Your task to perform on an android device: toggle translation in the chrome app Image 0: 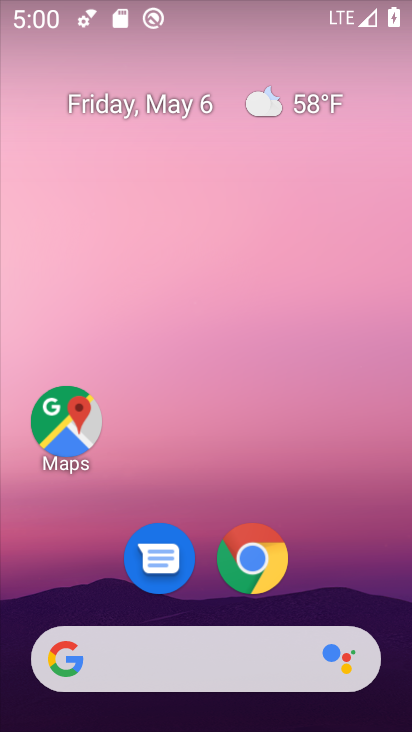
Step 0: drag from (294, 609) to (301, 58)
Your task to perform on an android device: toggle translation in the chrome app Image 1: 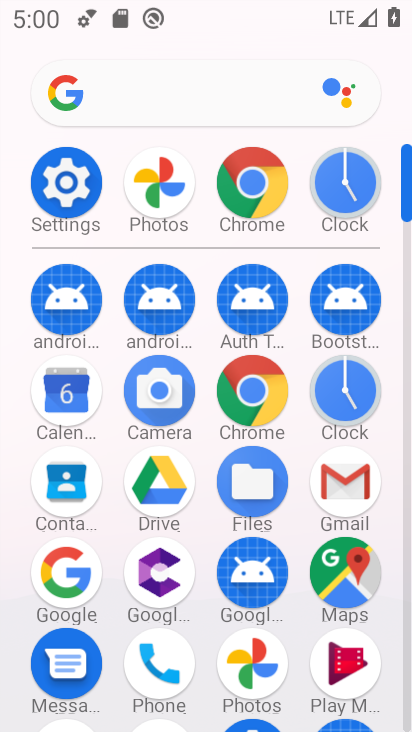
Step 1: click (265, 403)
Your task to perform on an android device: toggle translation in the chrome app Image 2: 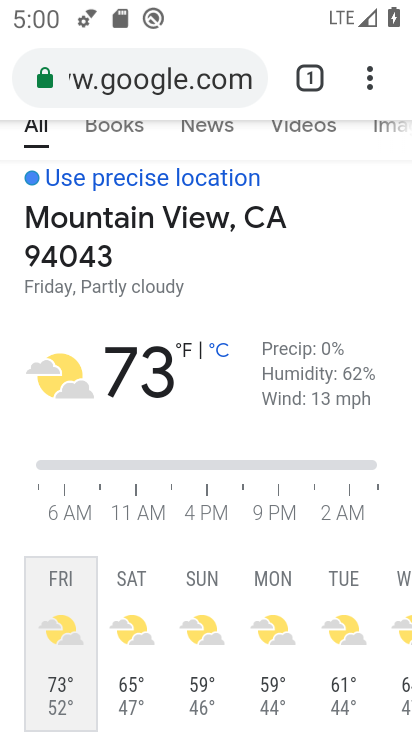
Step 2: drag from (371, 78) to (126, 633)
Your task to perform on an android device: toggle translation in the chrome app Image 3: 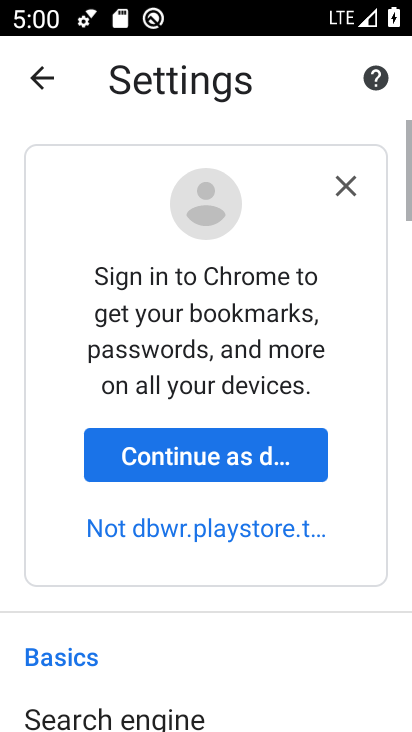
Step 3: drag from (158, 682) to (121, 8)
Your task to perform on an android device: toggle translation in the chrome app Image 4: 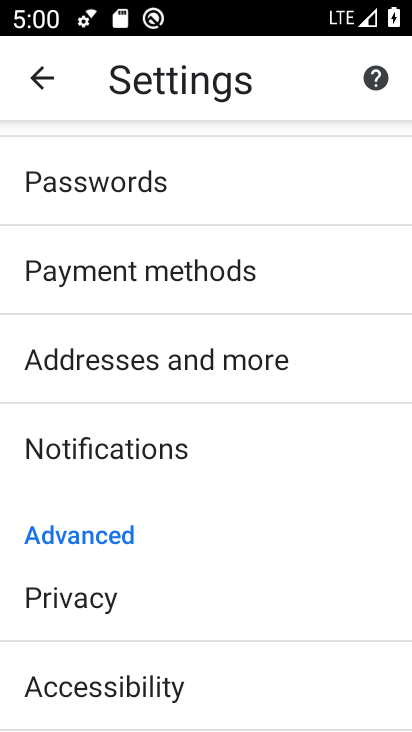
Step 4: drag from (243, 714) to (230, 168)
Your task to perform on an android device: toggle translation in the chrome app Image 5: 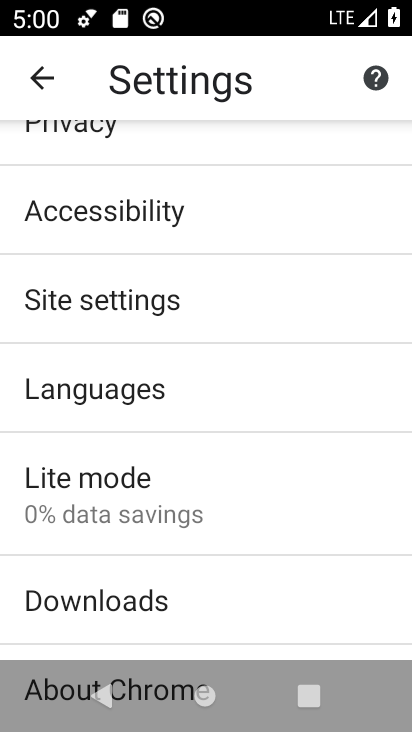
Step 5: click (144, 304)
Your task to perform on an android device: toggle translation in the chrome app Image 6: 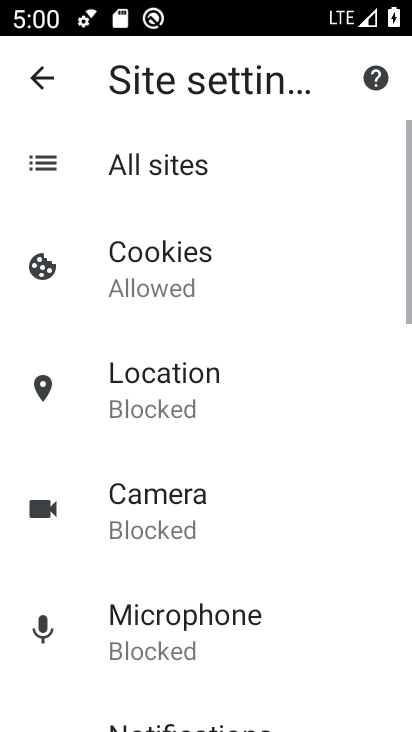
Step 6: press back button
Your task to perform on an android device: toggle translation in the chrome app Image 7: 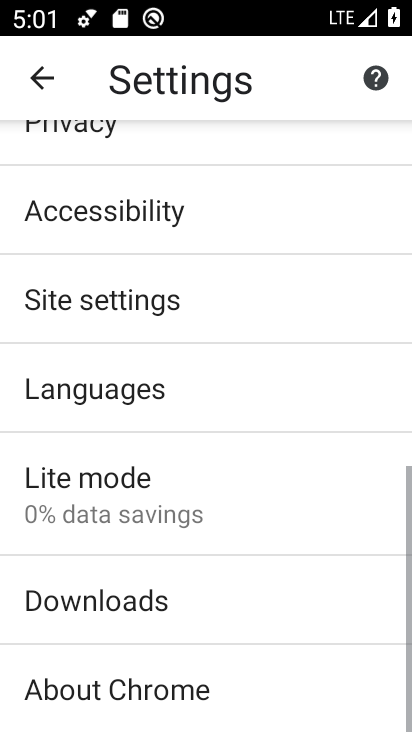
Step 7: click (194, 402)
Your task to perform on an android device: toggle translation in the chrome app Image 8: 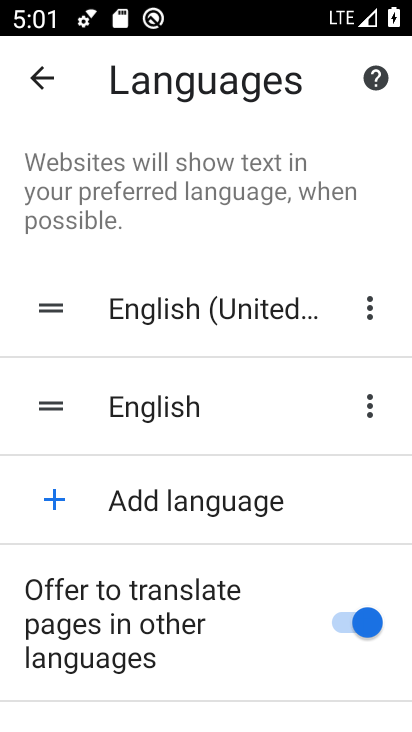
Step 8: click (341, 627)
Your task to perform on an android device: toggle translation in the chrome app Image 9: 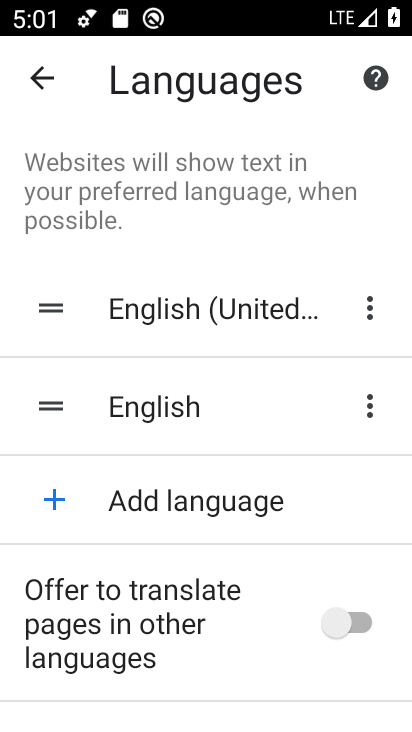
Step 9: task complete